Your task to perform on an android device: Open eBay Image 0: 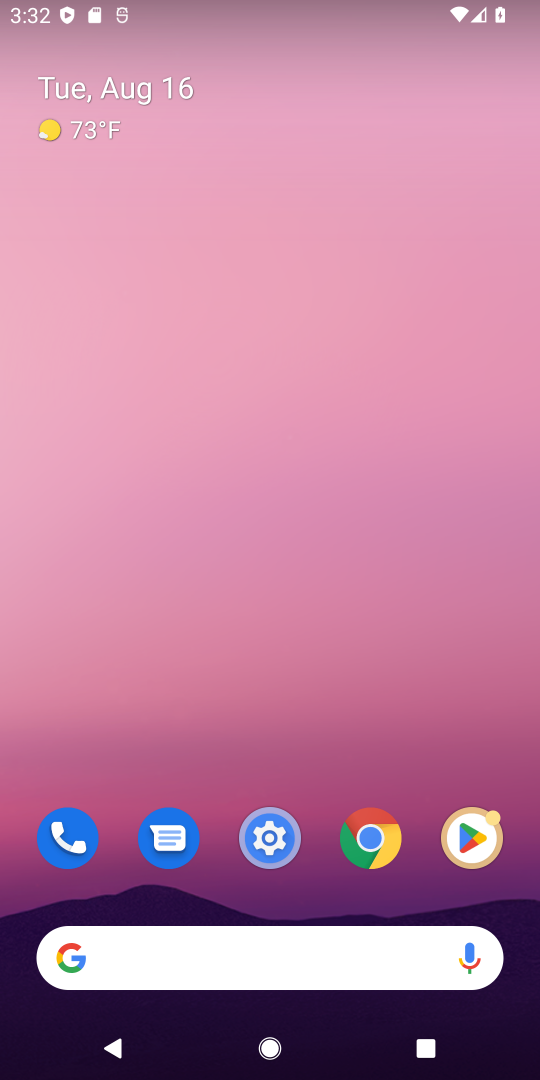
Step 0: click (351, 843)
Your task to perform on an android device: Open eBay Image 1: 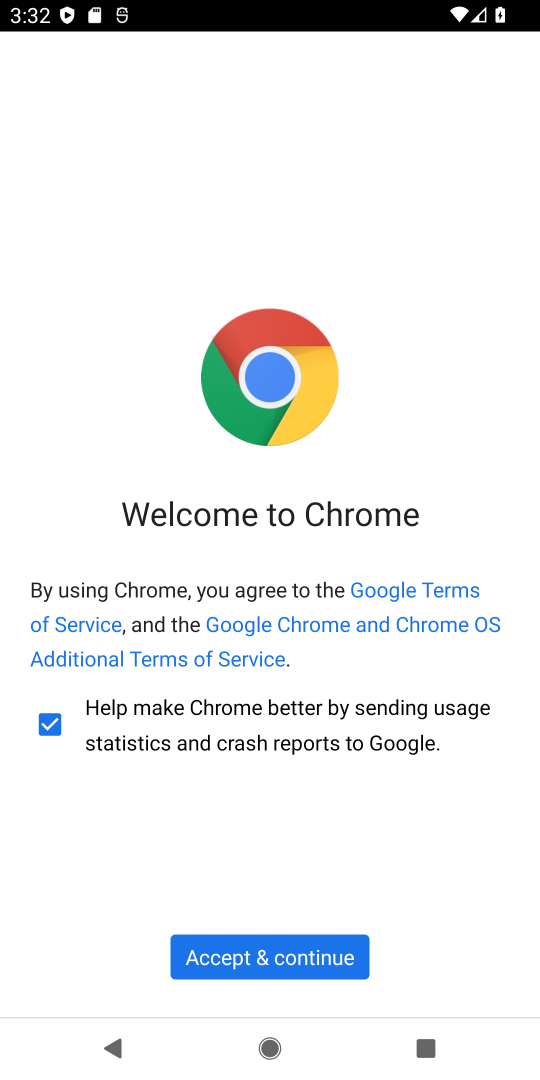
Step 1: click (314, 938)
Your task to perform on an android device: Open eBay Image 2: 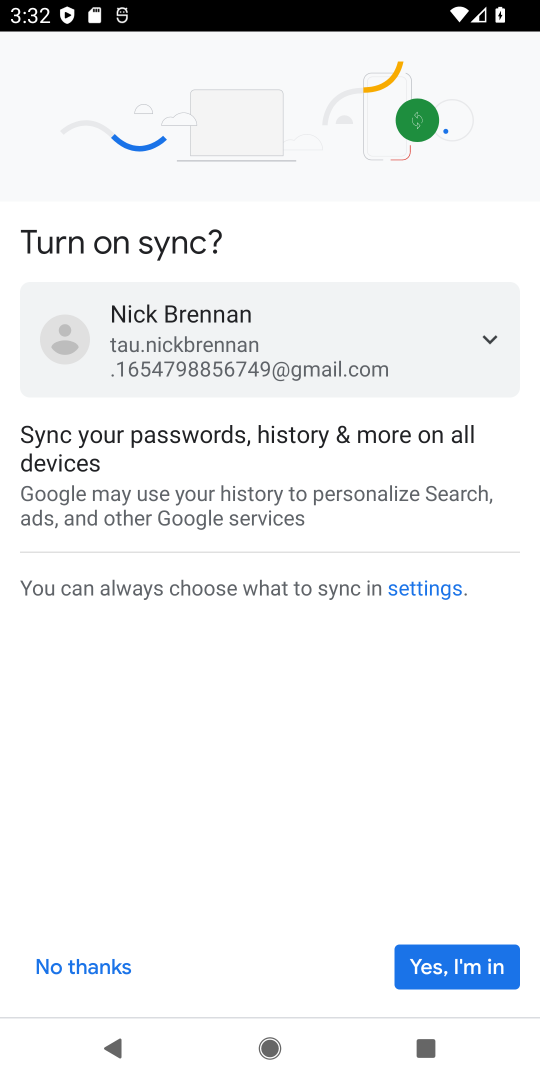
Step 2: click (459, 973)
Your task to perform on an android device: Open eBay Image 3: 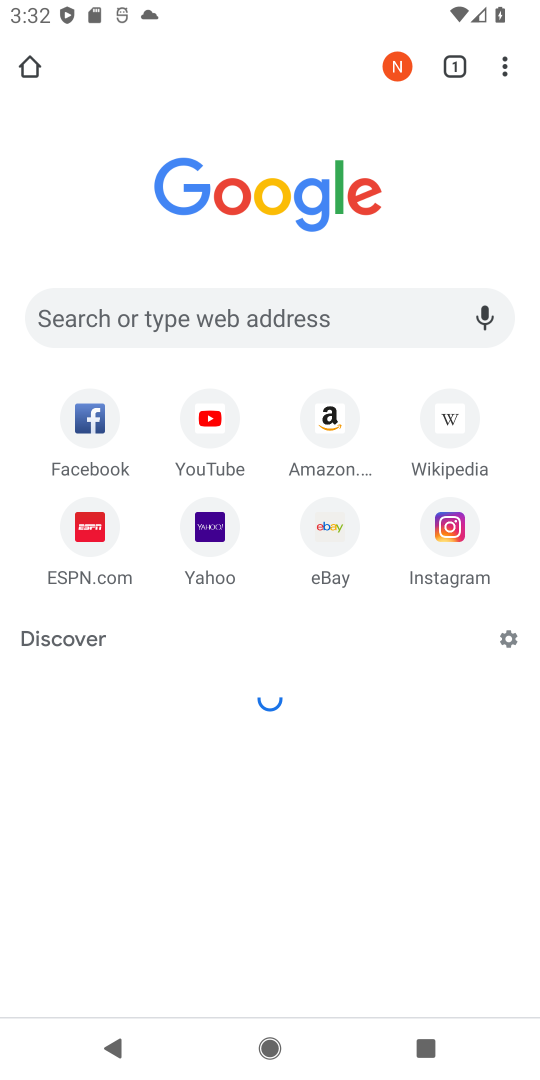
Step 3: click (330, 535)
Your task to perform on an android device: Open eBay Image 4: 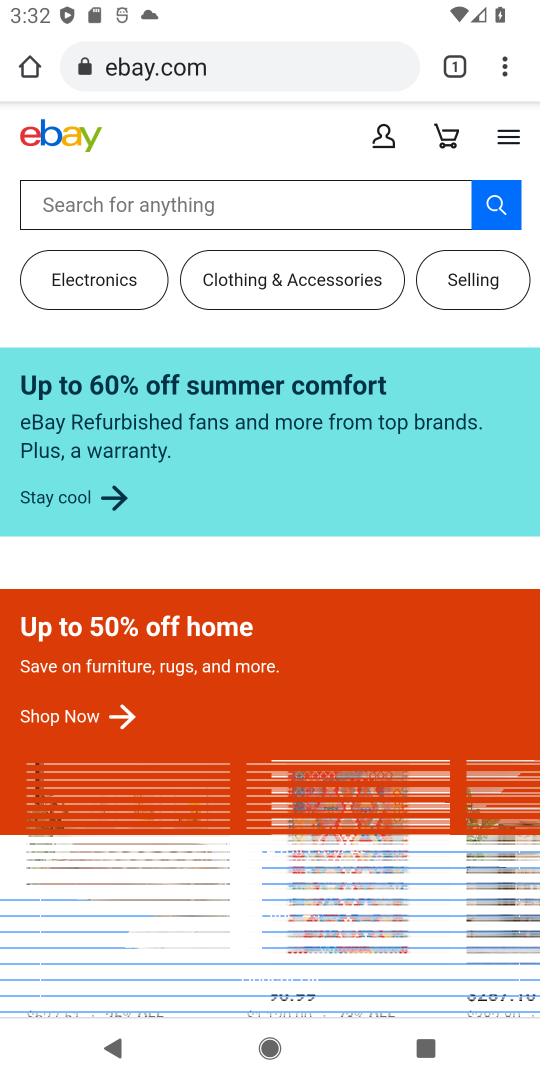
Step 4: task complete